Your task to perform on an android device: Go to location settings Image 0: 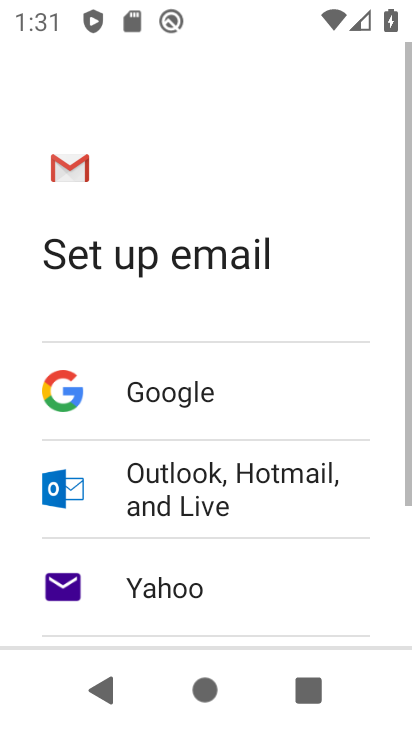
Step 0: press home button
Your task to perform on an android device: Go to location settings Image 1: 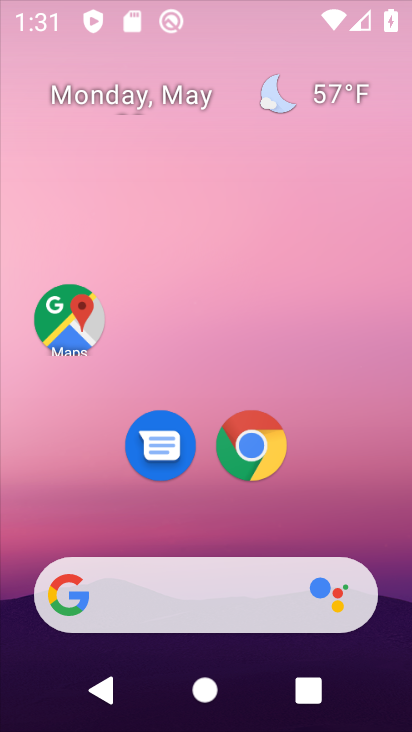
Step 1: drag from (209, 528) to (214, 23)
Your task to perform on an android device: Go to location settings Image 2: 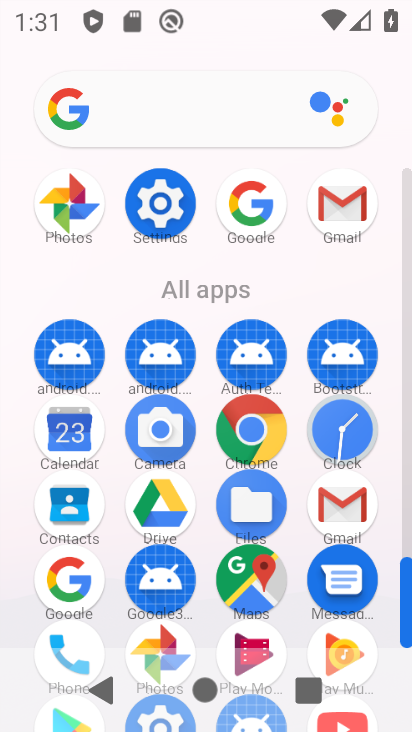
Step 2: click (158, 204)
Your task to perform on an android device: Go to location settings Image 3: 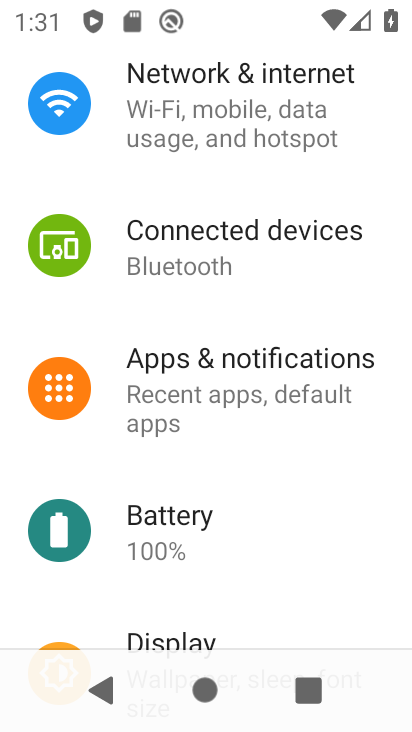
Step 3: drag from (232, 567) to (209, 93)
Your task to perform on an android device: Go to location settings Image 4: 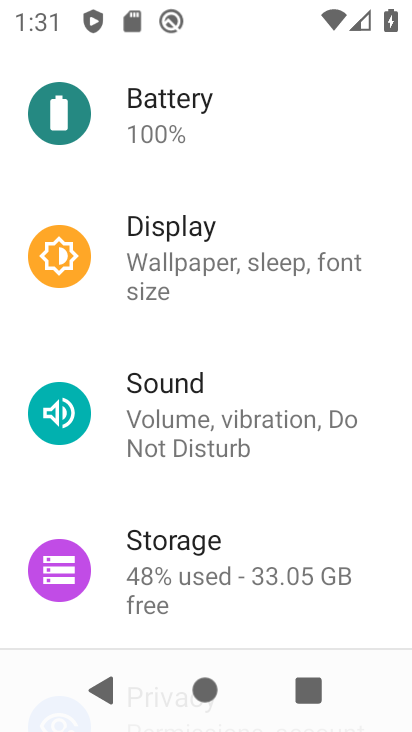
Step 4: drag from (232, 559) to (236, 187)
Your task to perform on an android device: Go to location settings Image 5: 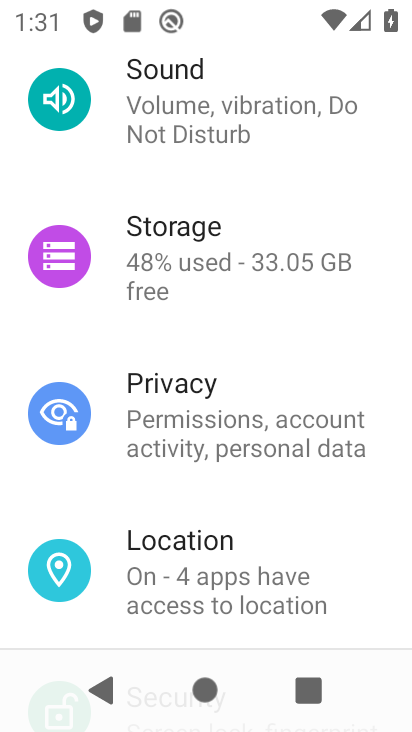
Step 5: click (187, 571)
Your task to perform on an android device: Go to location settings Image 6: 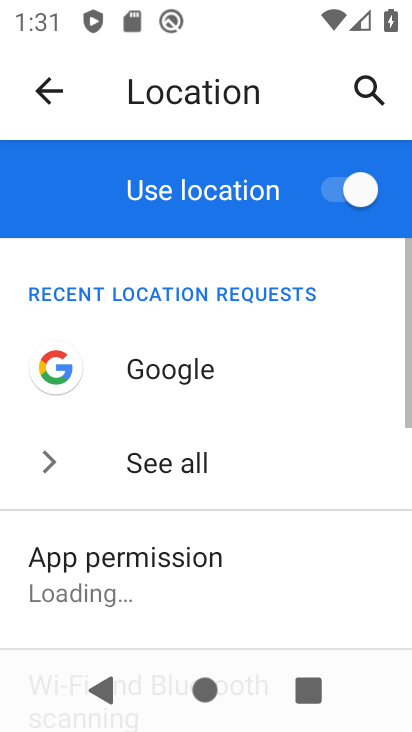
Step 6: task complete